Your task to perform on an android device: turn on javascript in the chrome app Image 0: 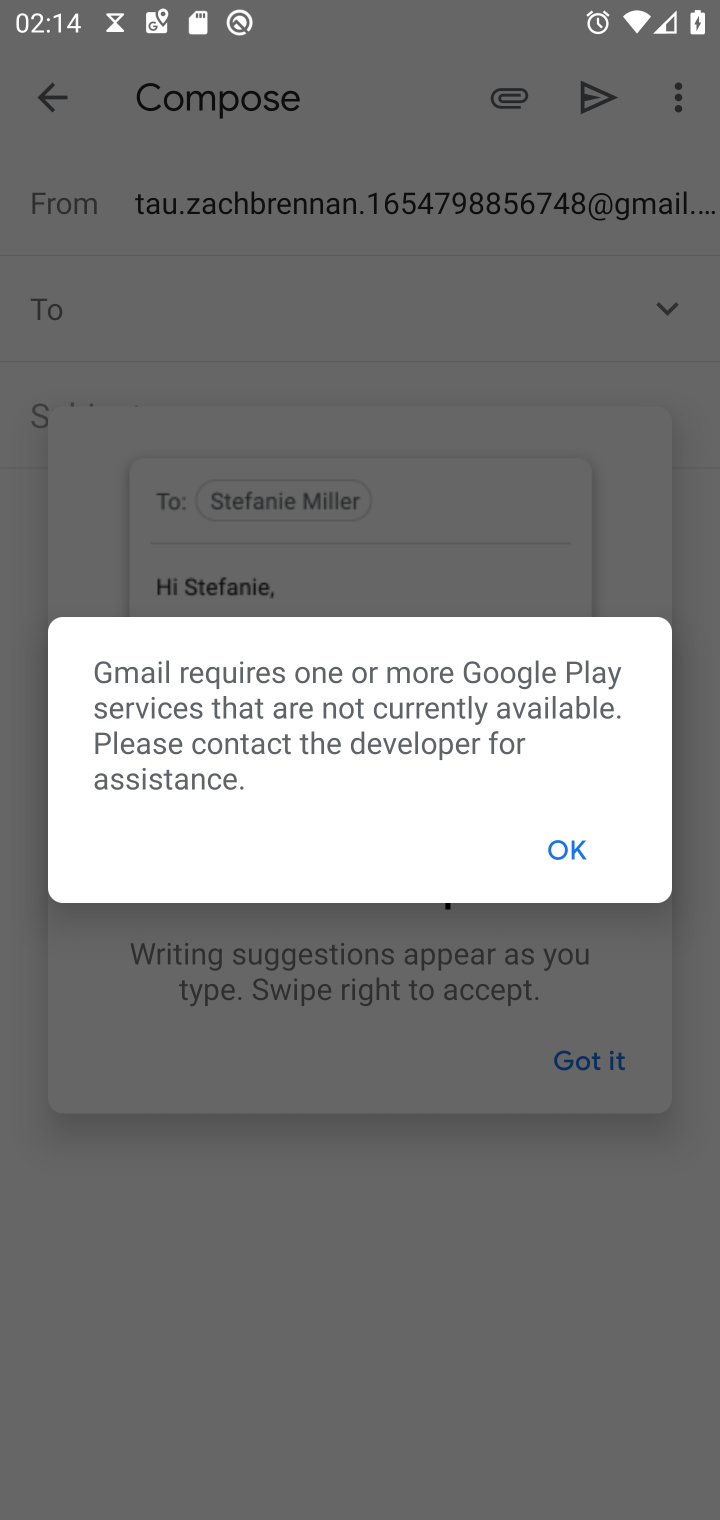
Step 0: press home button
Your task to perform on an android device: turn on javascript in the chrome app Image 1: 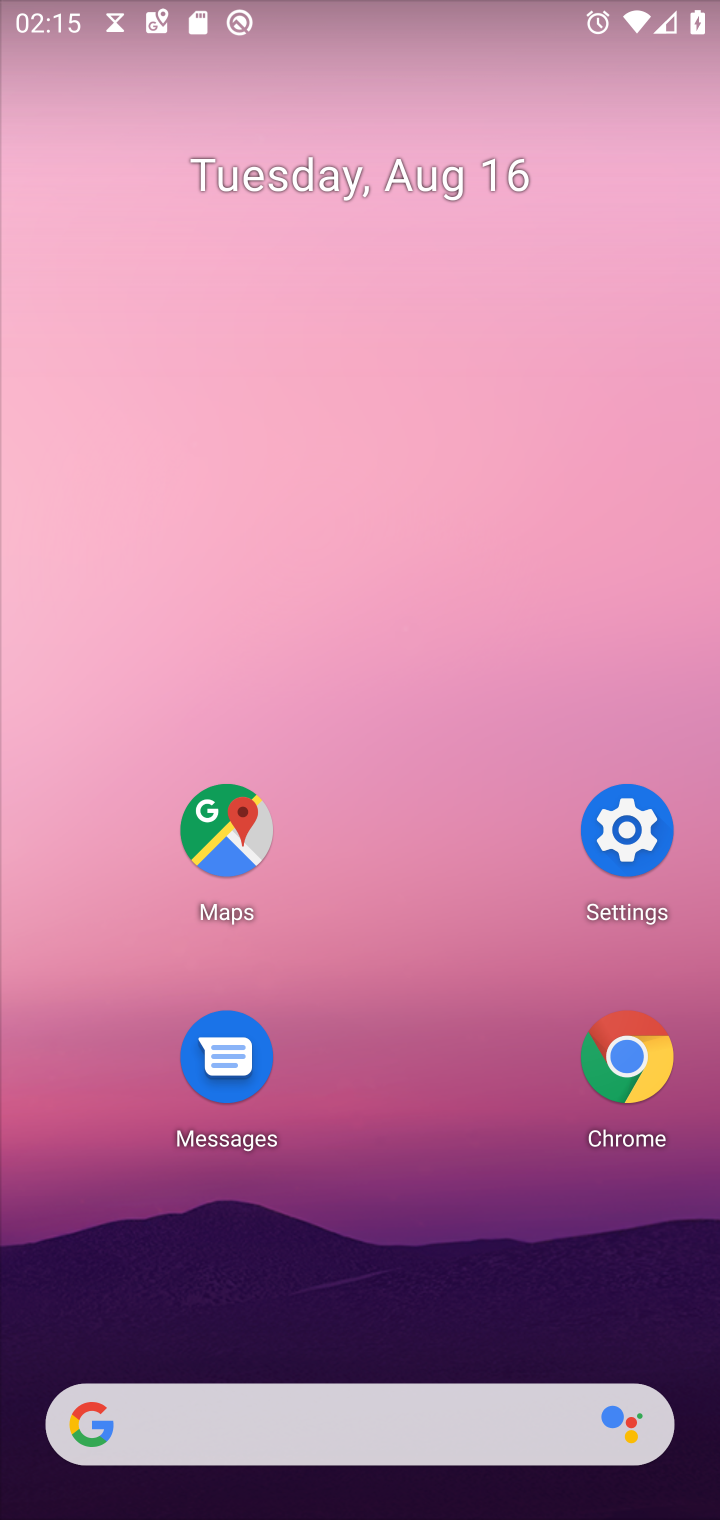
Step 1: click (614, 1057)
Your task to perform on an android device: turn on javascript in the chrome app Image 2: 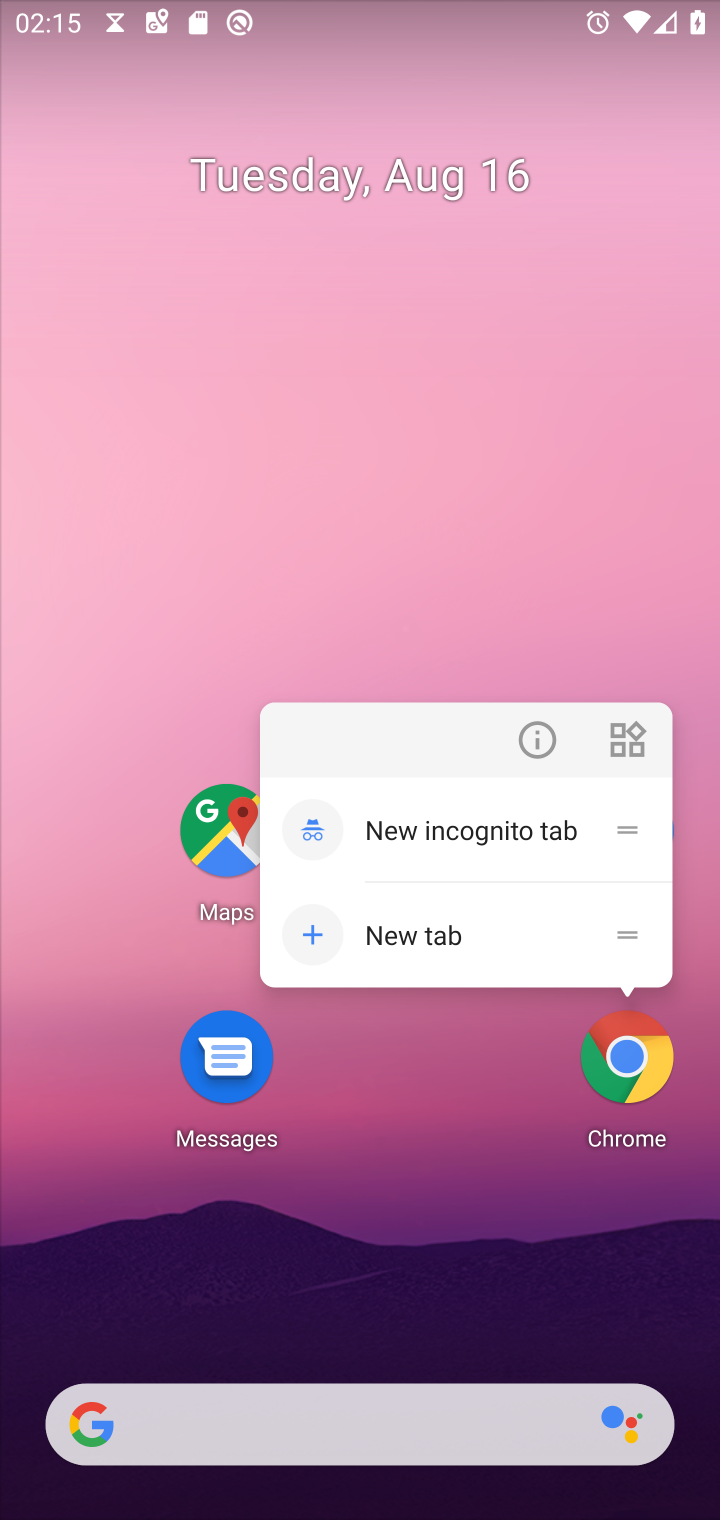
Step 2: click (641, 1049)
Your task to perform on an android device: turn on javascript in the chrome app Image 3: 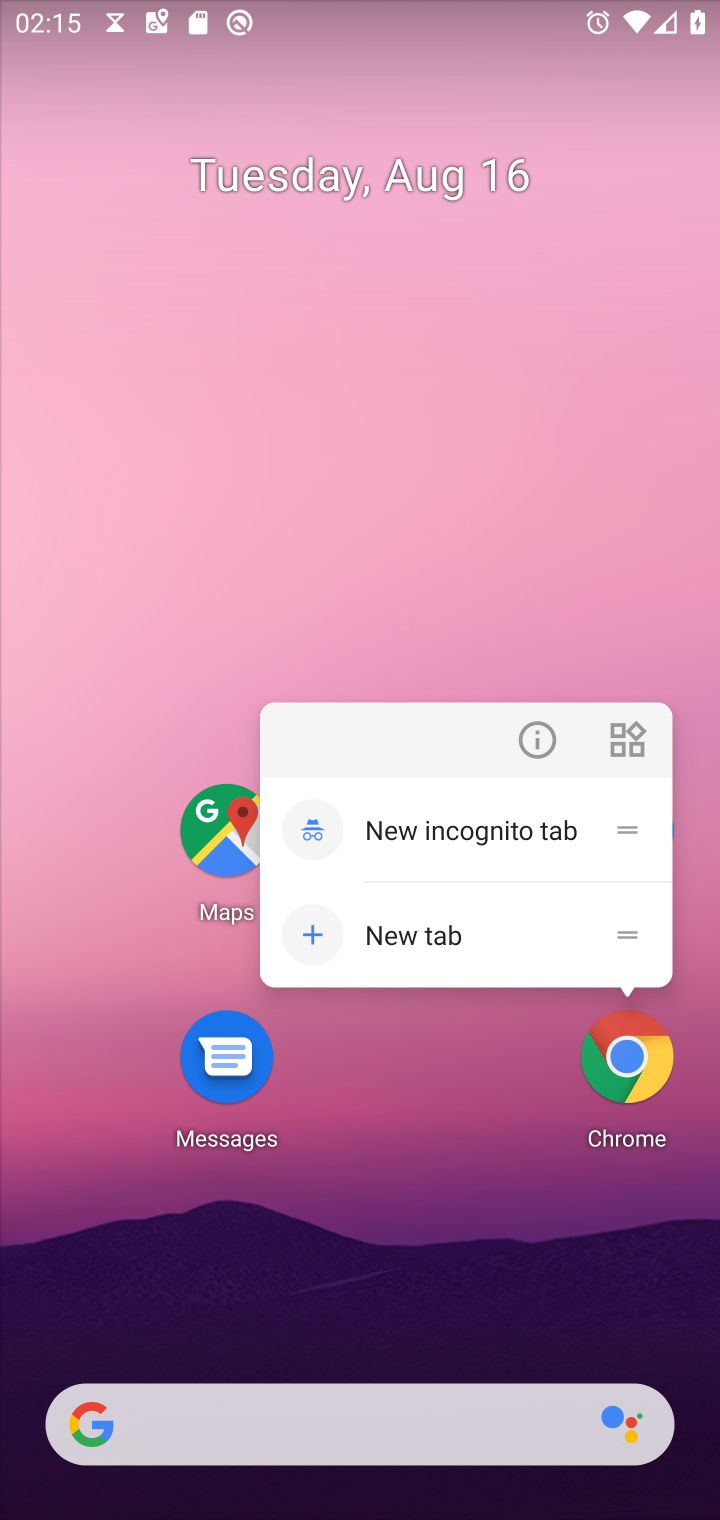
Step 3: click (628, 1071)
Your task to perform on an android device: turn on javascript in the chrome app Image 4: 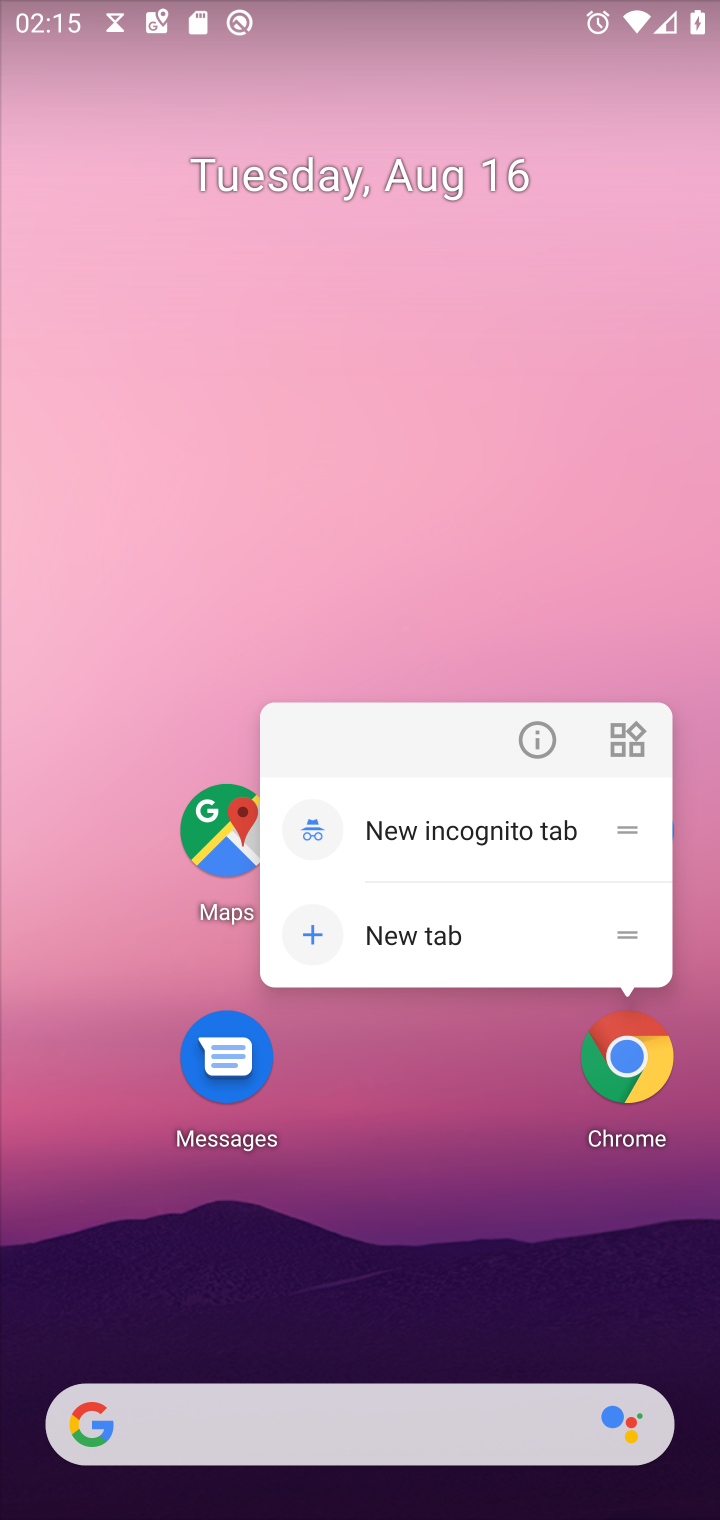
Step 4: click (628, 1081)
Your task to perform on an android device: turn on javascript in the chrome app Image 5: 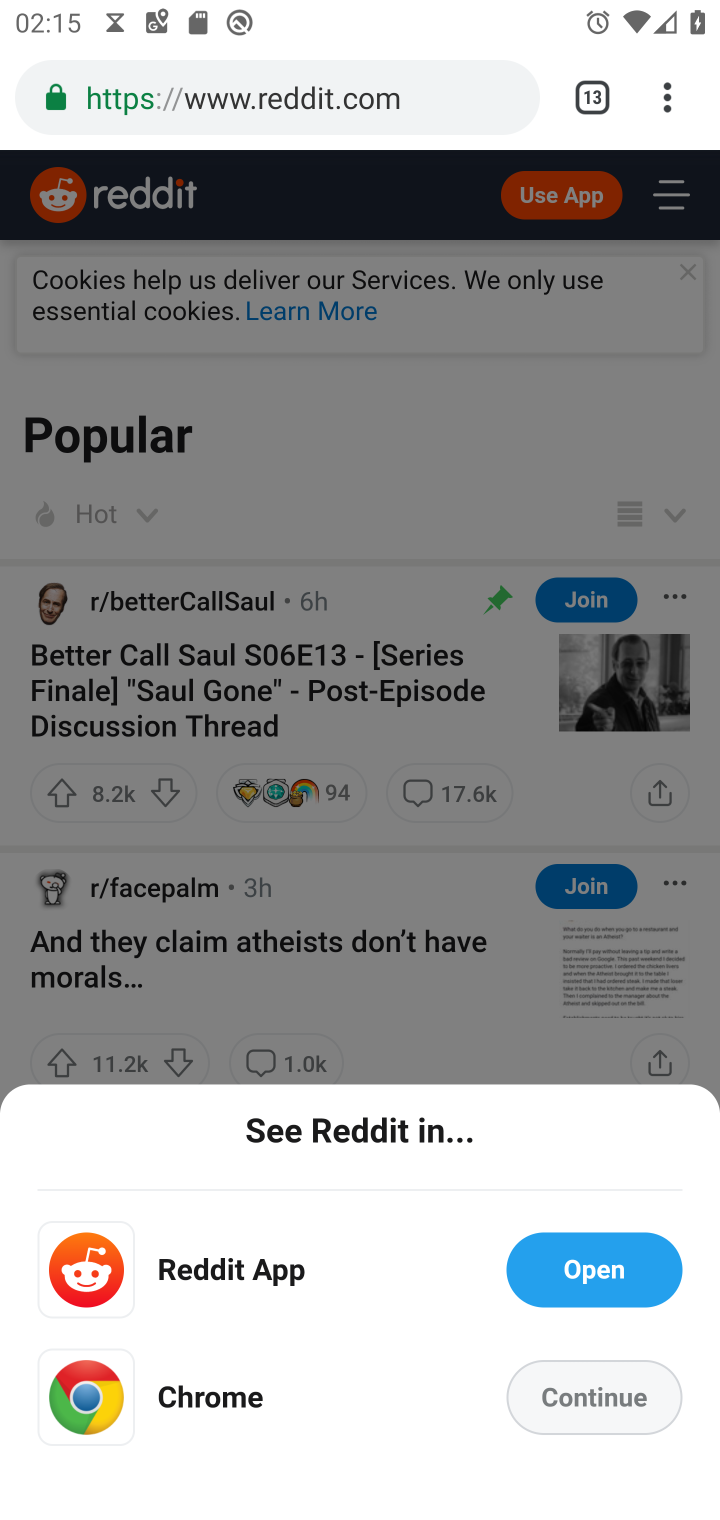
Step 5: drag from (671, 95) to (378, 1207)
Your task to perform on an android device: turn on javascript in the chrome app Image 6: 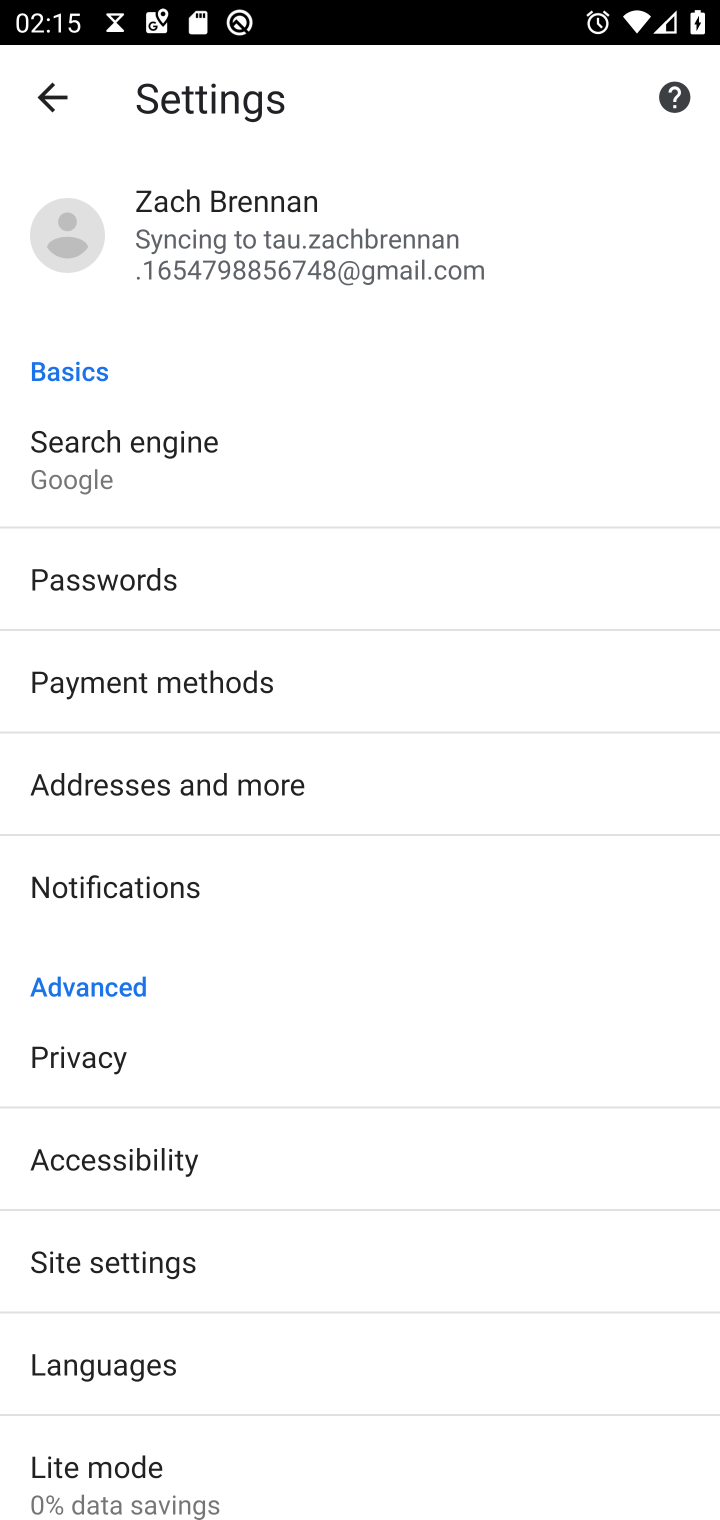
Step 6: click (156, 1260)
Your task to perform on an android device: turn on javascript in the chrome app Image 7: 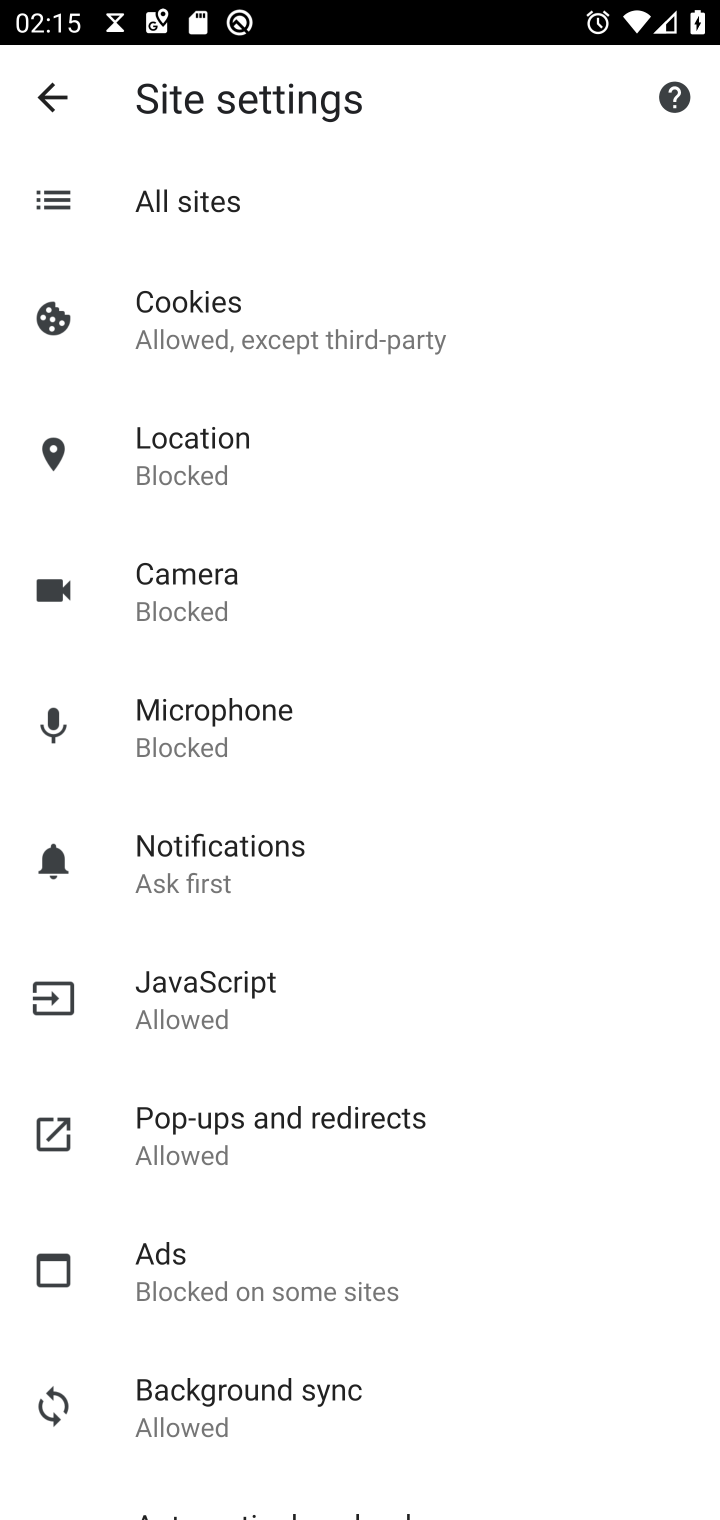
Step 7: click (224, 983)
Your task to perform on an android device: turn on javascript in the chrome app Image 8: 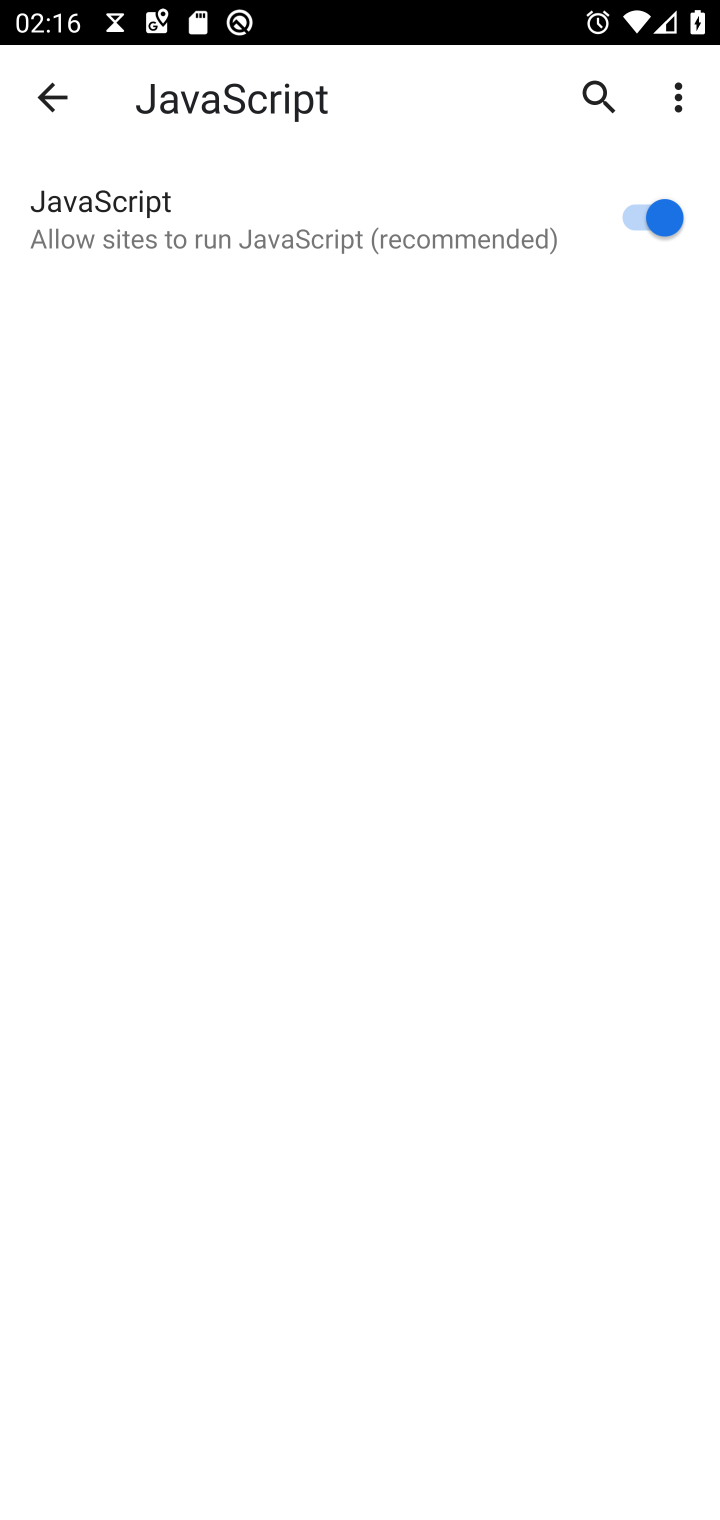
Step 8: task complete